Your task to perform on an android device: show emergency info Image 0: 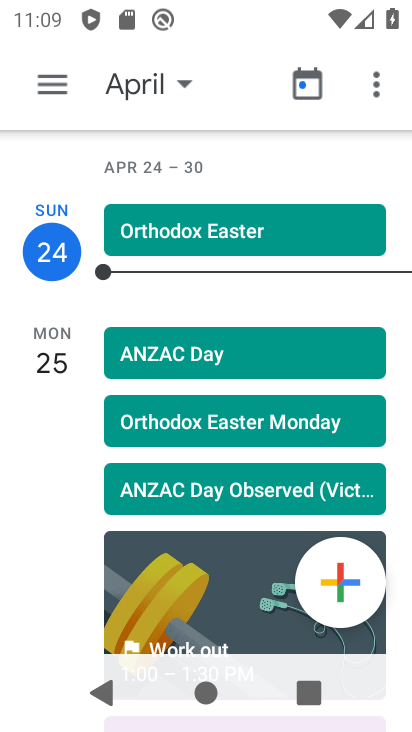
Step 0: press home button
Your task to perform on an android device: show emergency info Image 1: 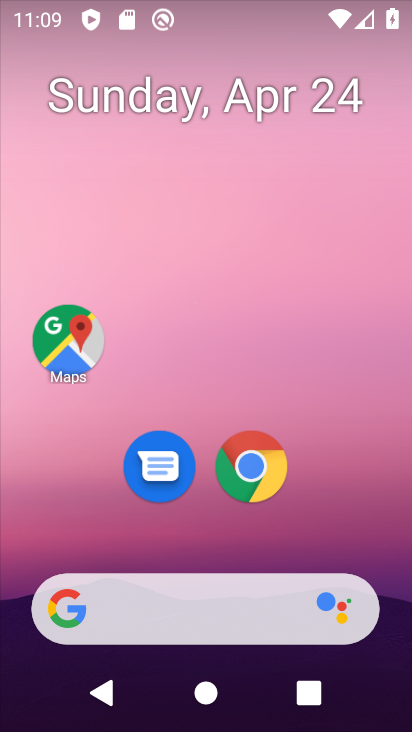
Step 1: drag from (328, 514) to (290, 27)
Your task to perform on an android device: show emergency info Image 2: 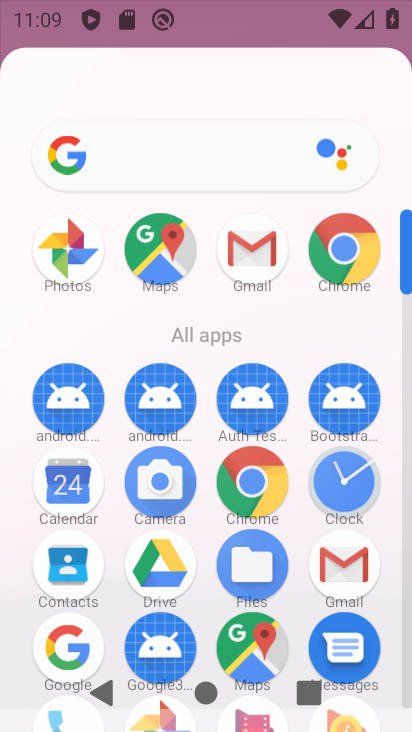
Step 2: click (288, 0)
Your task to perform on an android device: show emergency info Image 3: 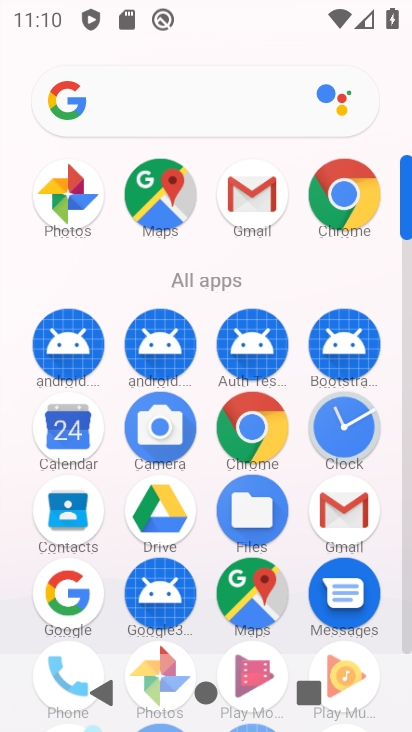
Step 3: drag from (235, 282) to (198, 100)
Your task to perform on an android device: show emergency info Image 4: 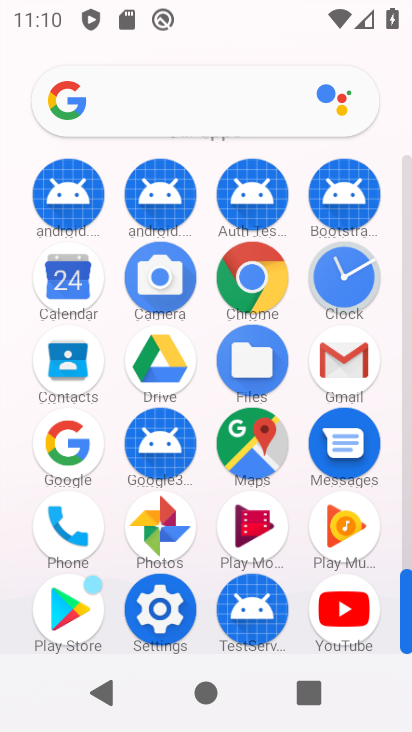
Step 4: click (198, 620)
Your task to perform on an android device: show emergency info Image 5: 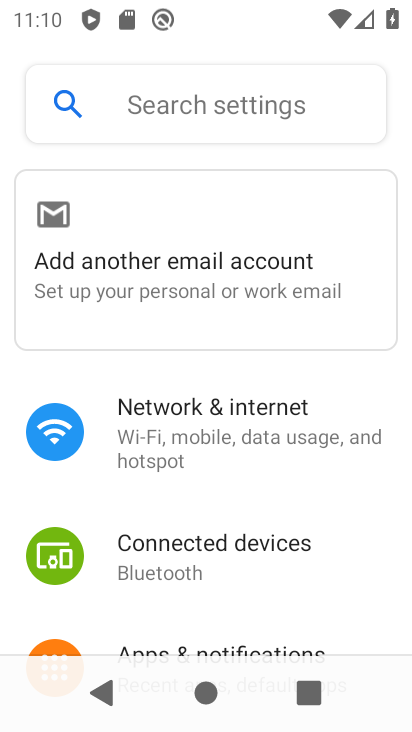
Step 5: drag from (167, 525) to (143, 192)
Your task to perform on an android device: show emergency info Image 6: 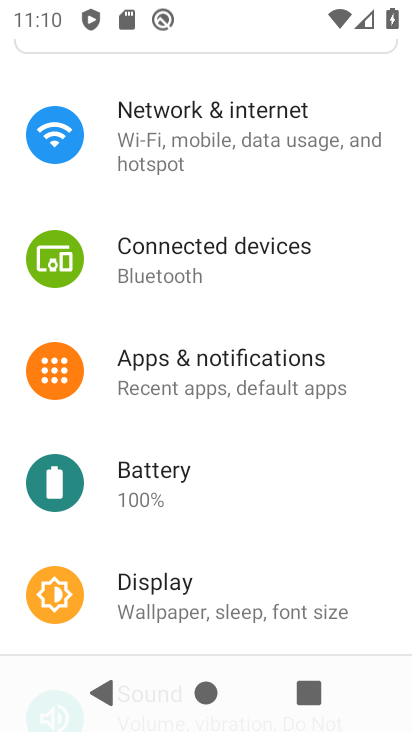
Step 6: drag from (198, 593) to (158, 143)
Your task to perform on an android device: show emergency info Image 7: 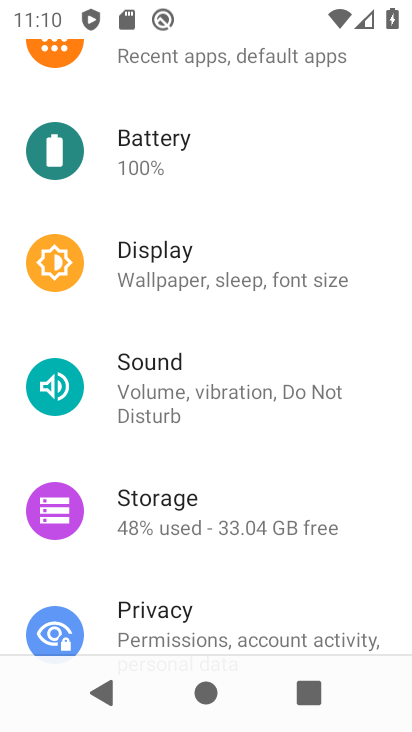
Step 7: drag from (216, 617) to (118, 4)
Your task to perform on an android device: show emergency info Image 8: 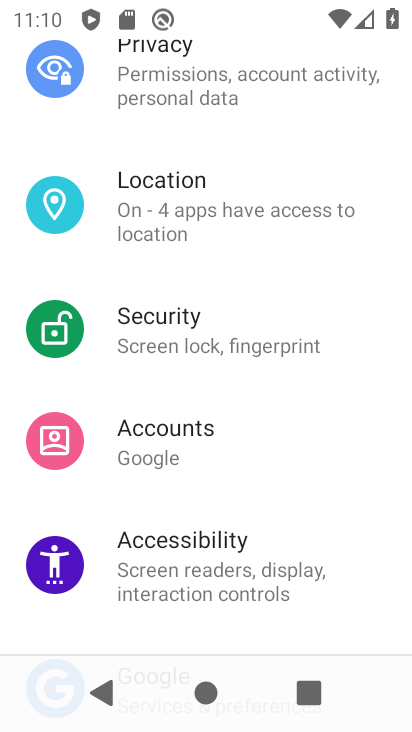
Step 8: drag from (237, 601) to (119, 6)
Your task to perform on an android device: show emergency info Image 9: 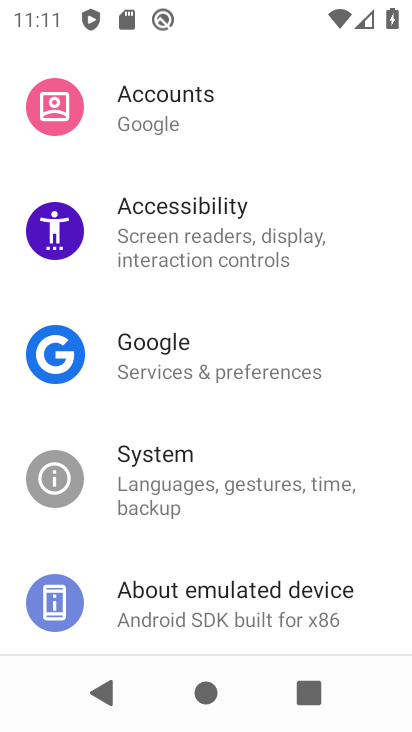
Step 9: click (191, 606)
Your task to perform on an android device: show emergency info Image 10: 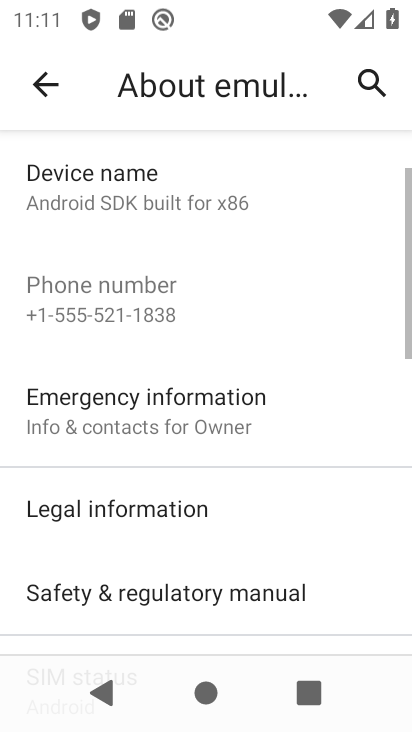
Step 10: click (203, 397)
Your task to perform on an android device: show emergency info Image 11: 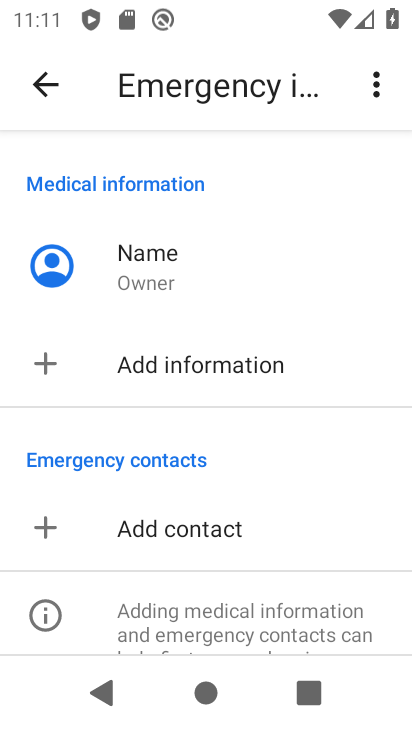
Step 11: task complete